Your task to perform on an android device: Open Chrome and go to settings Image 0: 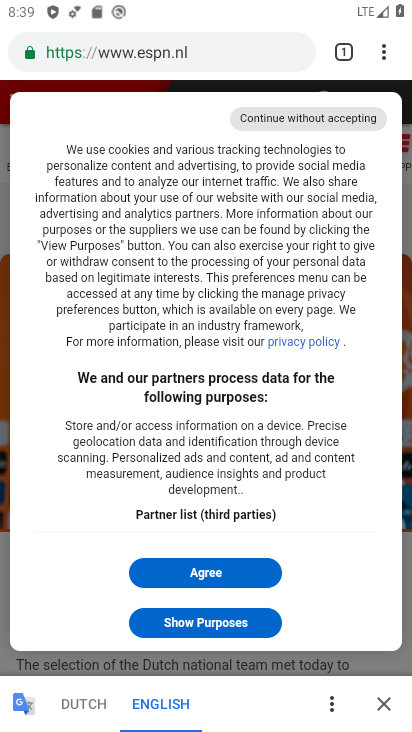
Step 0: press home button
Your task to perform on an android device: Open Chrome and go to settings Image 1: 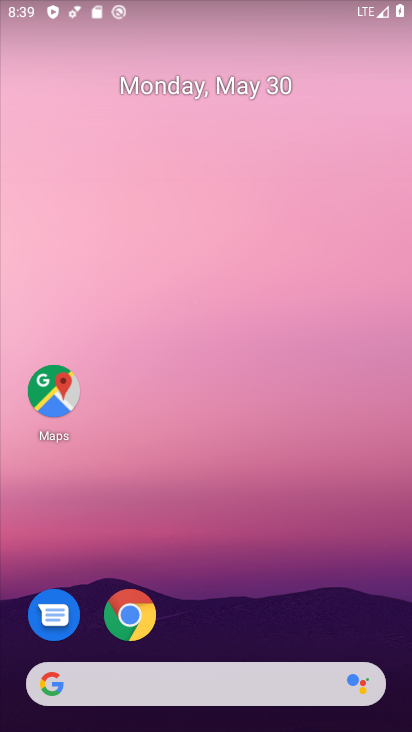
Step 1: click (135, 650)
Your task to perform on an android device: Open Chrome and go to settings Image 2: 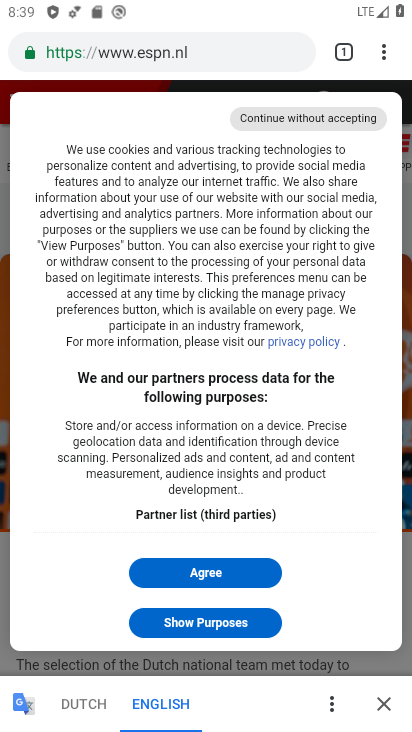
Step 2: click (332, 63)
Your task to perform on an android device: Open Chrome and go to settings Image 3: 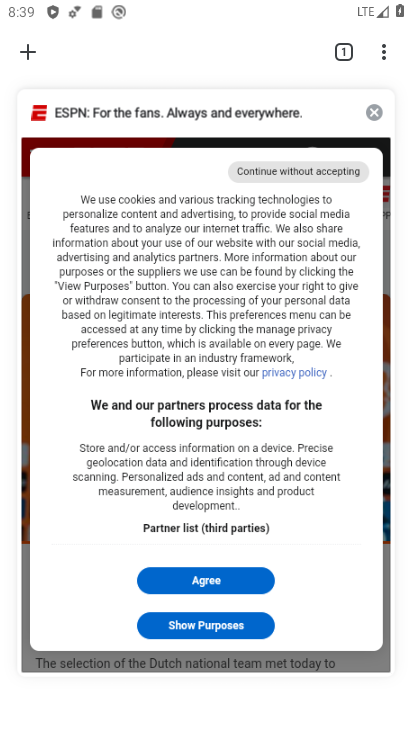
Step 3: click (384, 115)
Your task to perform on an android device: Open Chrome and go to settings Image 4: 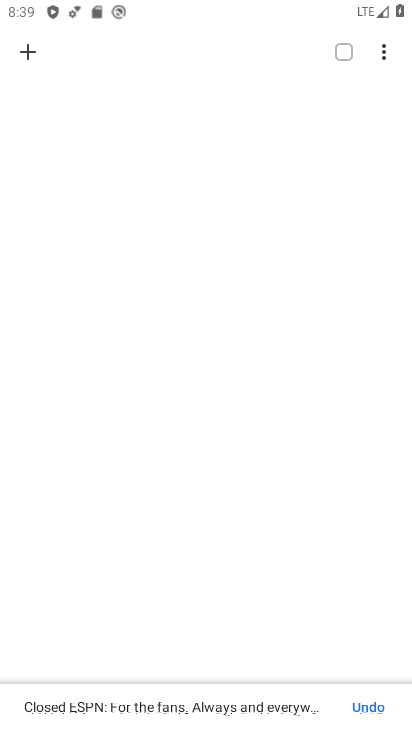
Step 4: click (379, 54)
Your task to perform on an android device: Open Chrome and go to settings Image 5: 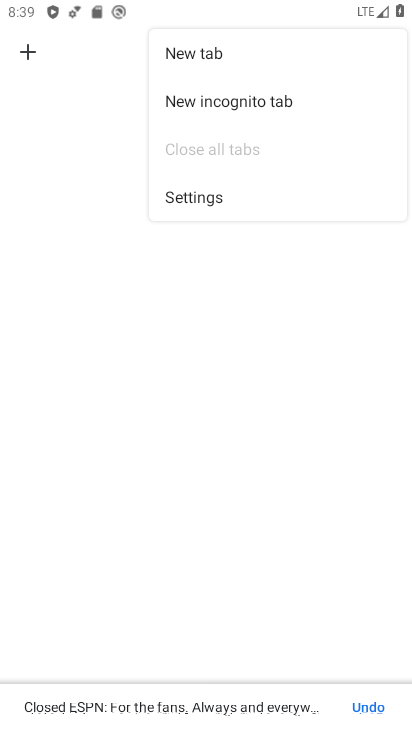
Step 5: click (210, 200)
Your task to perform on an android device: Open Chrome and go to settings Image 6: 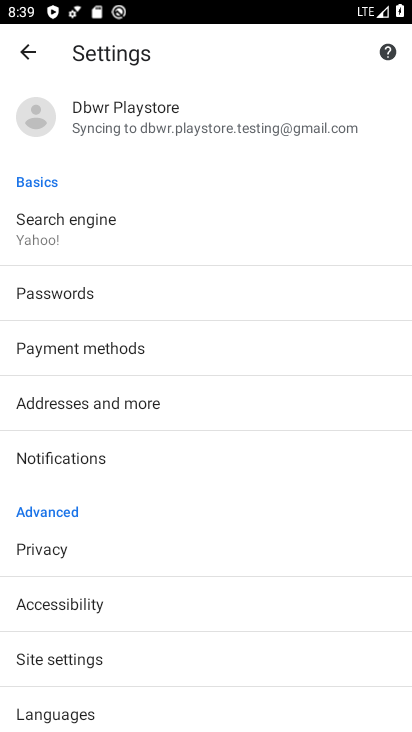
Step 6: task complete